Your task to perform on an android device: Go to location settings Image 0: 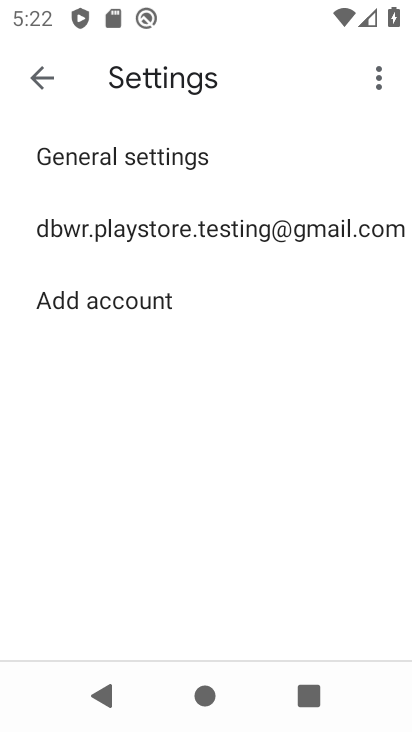
Step 0: press home button
Your task to perform on an android device: Go to location settings Image 1: 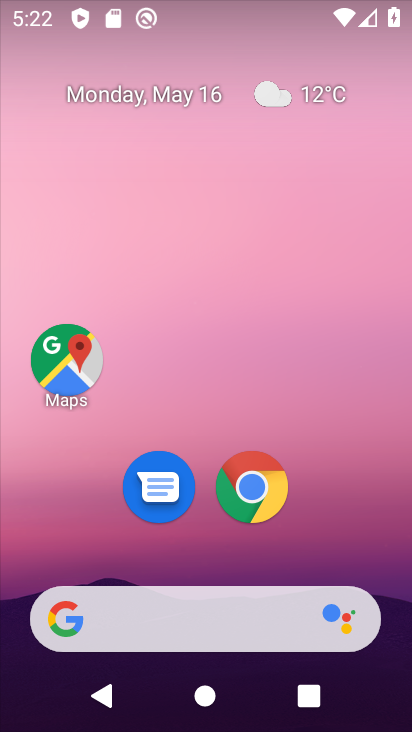
Step 1: drag from (344, 397) to (354, 116)
Your task to perform on an android device: Go to location settings Image 2: 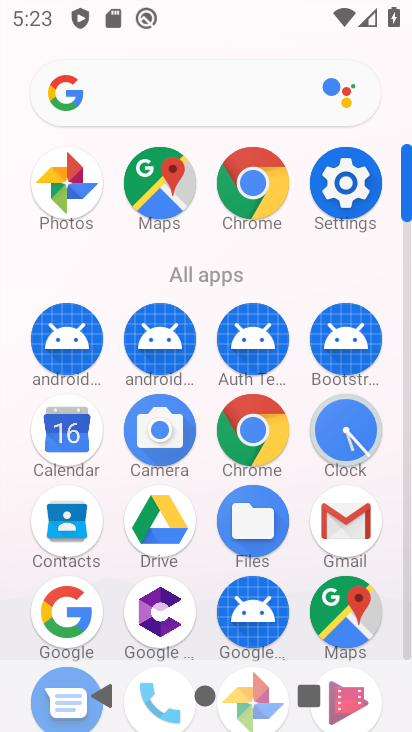
Step 2: click (367, 190)
Your task to perform on an android device: Go to location settings Image 3: 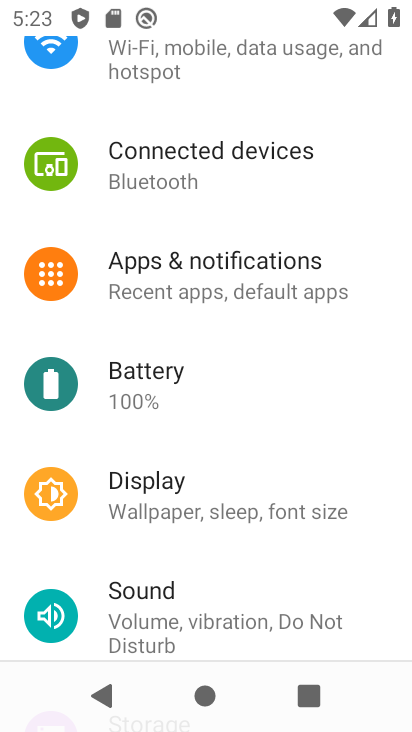
Step 3: drag from (234, 562) to (294, 172)
Your task to perform on an android device: Go to location settings Image 4: 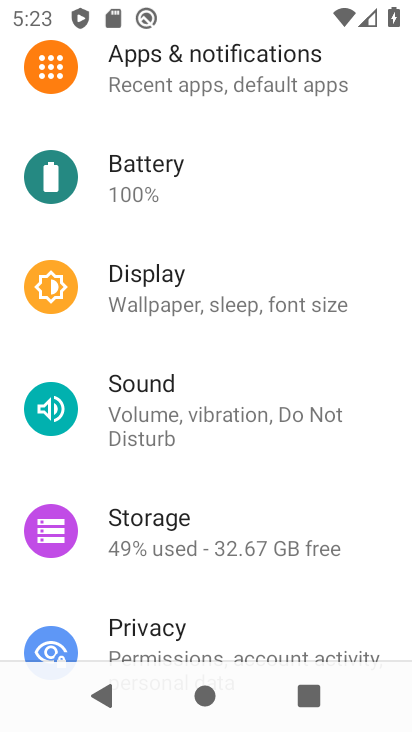
Step 4: drag from (263, 515) to (284, 223)
Your task to perform on an android device: Go to location settings Image 5: 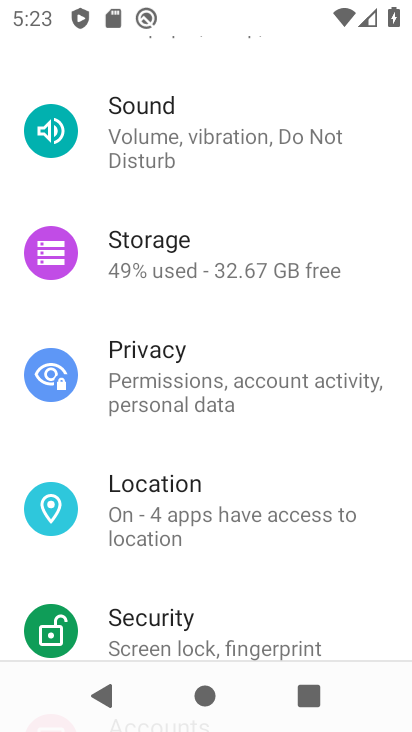
Step 5: click (284, 223)
Your task to perform on an android device: Go to location settings Image 6: 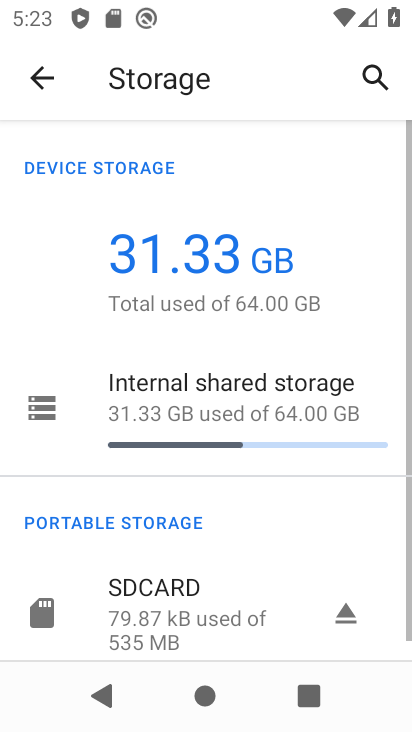
Step 6: click (217, 492)
Your task to perform on an android device: Go to location settings Image 7: 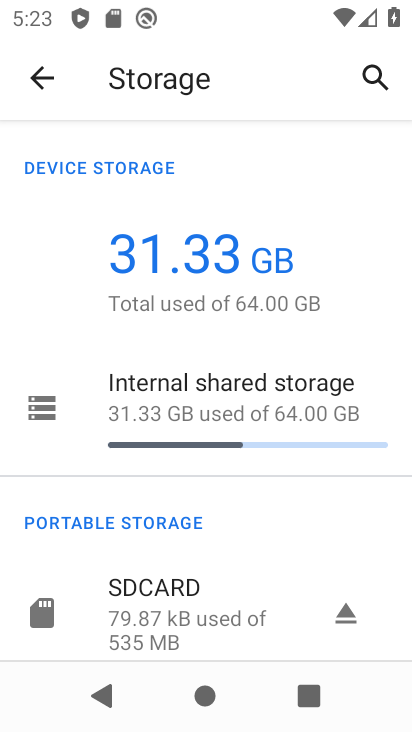
Step 7: click (0, 68)
Your task to perform on an android device: Go to location settings Image 8: 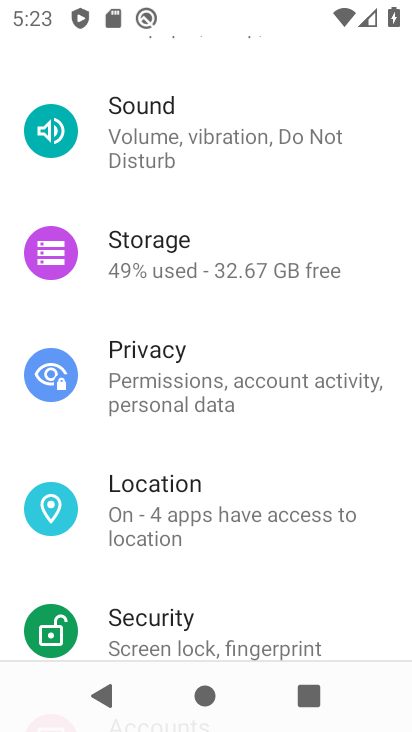
Step 8: click (163, 488)
Your task to perform on an android device: Go to location settings Image 9: 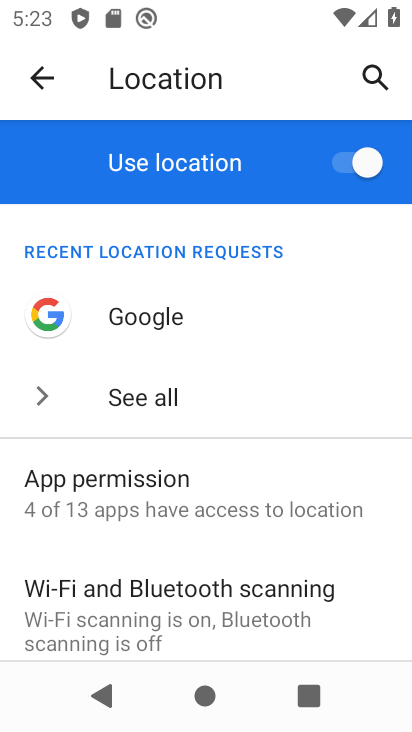
Step 9: drag from (153, 519) to (227, 77)
Your task to perform on an android device: Go to location settings Image 10: 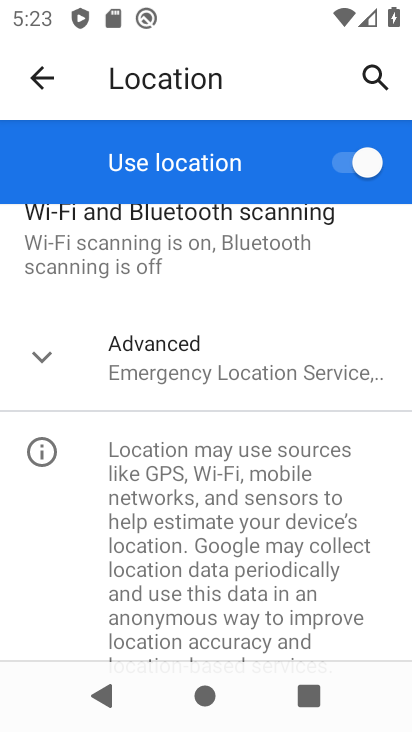
Step 10: click (176, 342)
Your task to perform on an android device: Go to location settings Image 11: 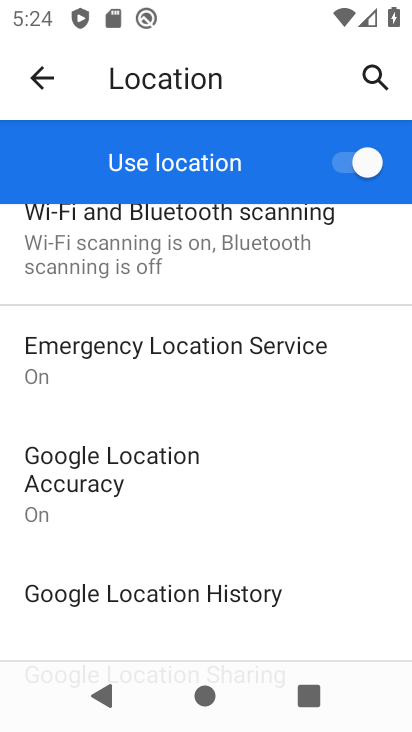
Step 11: task complete